Your task to perform on an android device: toggle notifications settings in the gmail app Image 0: 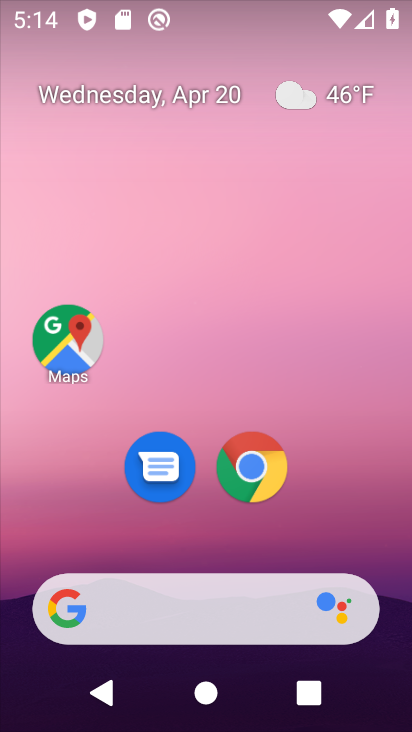
Step 0: drag from (208, 492) to (259, 1)
Your task to perform on an android device: toggle notifications settings in the gmail app Image 1: 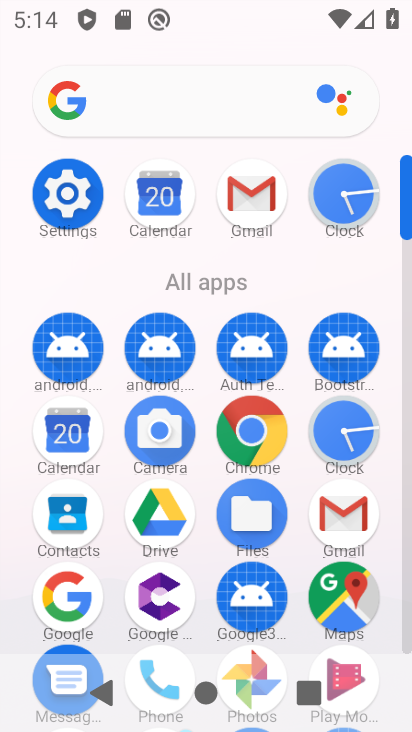
Step 1: click (337, 511)
Your task to perform on an android device: toggle notifications settings in the gmail app Image 2: 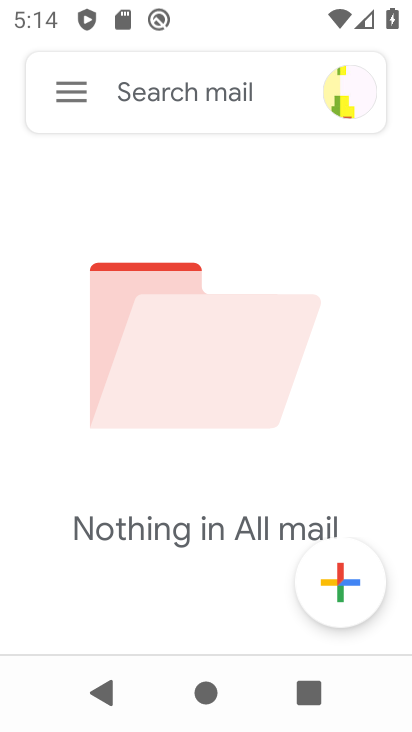
Step 2: click (79, 84)
Your task to perform on an android device: toggle notifications settings in the gmail app Image 3: 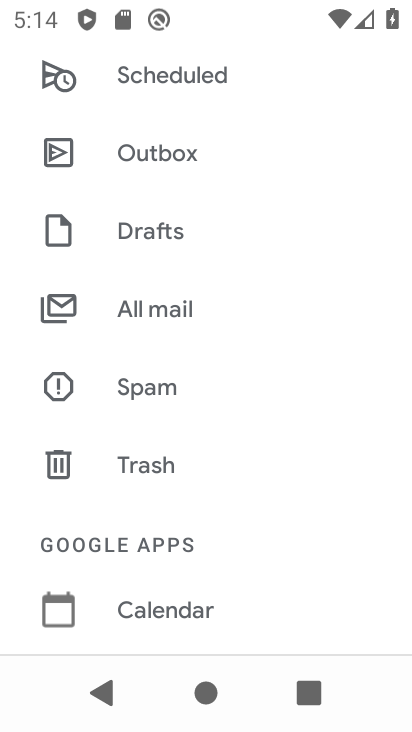
Step 3: drag from (126, 573) to (176, 71)
Your task to perform on an android device: toggle notifications settings in the gmail app Image 4: 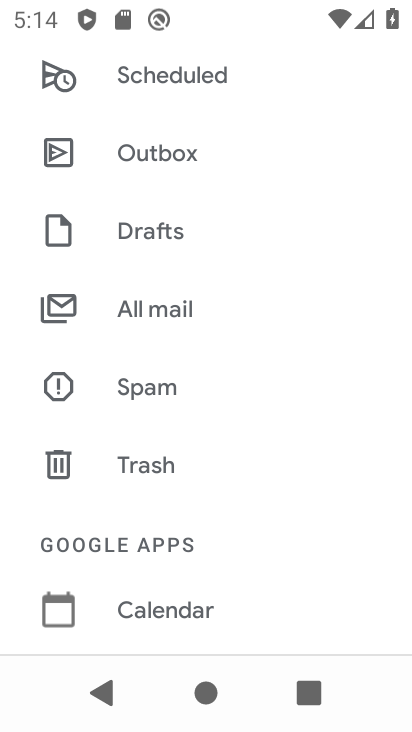
Step 4: drag from (172, 294) to (207, 92)
Your task to perform on an android device: toggle notifications settings in the gmail app Image 5: 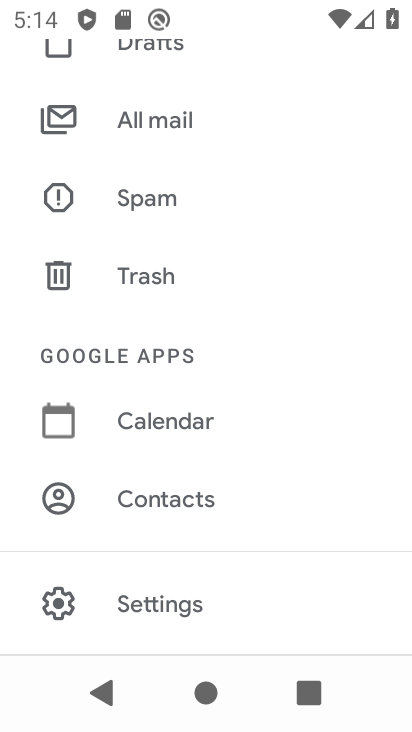
Step 5: drag from (187, 560) to (206, 218)
Your task to perform on an android device: toggle notifications settings in the gmail app Image 6: 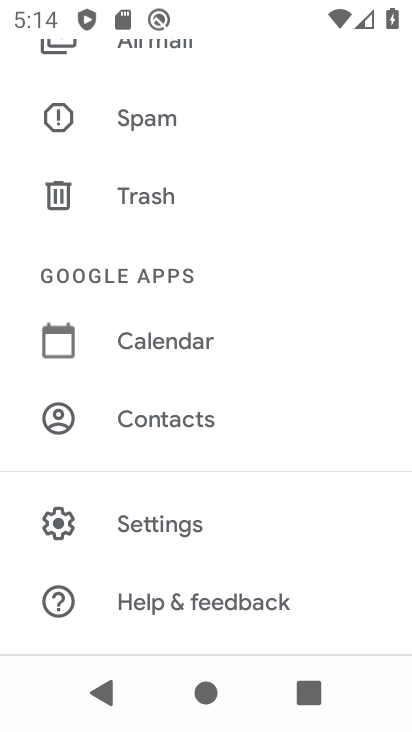
Step 6: click (151, 527)
Your task to perform on an android device: toggle notifications settings in the gmail app Image 7: 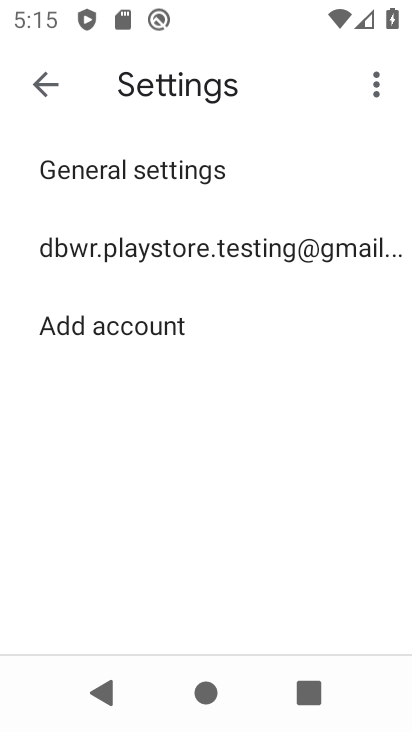
Step 7: click (148, 176)
Your task to perform on an android device: toggle notifications settings in the gmail app Image 8: 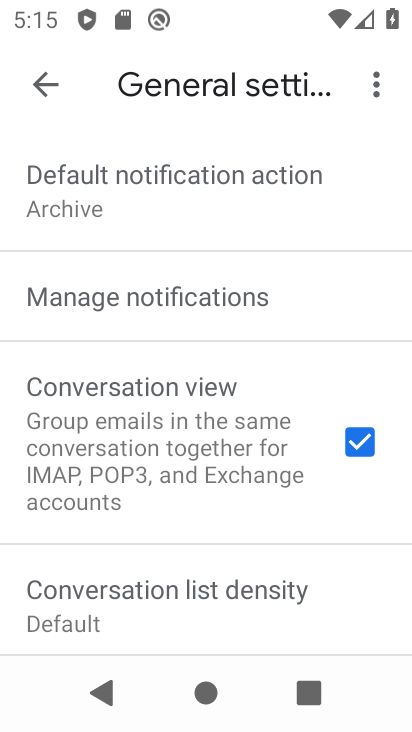
Step 8: click (151, 310)
Your task to perform on an android device: toggle notifications settings in the gmail app Image 9: 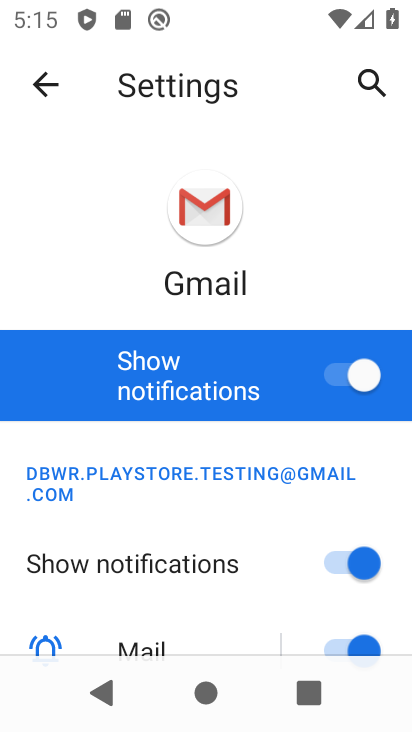
Step 9: click (332, 368)
Your task to perform on an android device: toggle notifications settings in the gmail app Image 10: 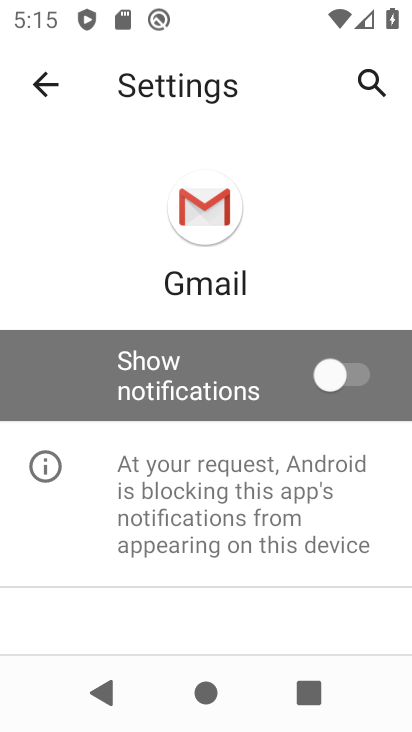
Step 10: task complete